Your task to perform on an android device: turn off location Image 0: 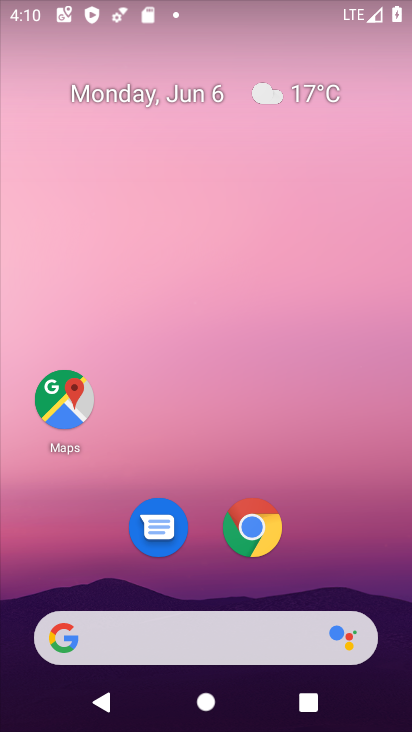
Step 0: drag from (327, 452) to (397, 120)
Your task to perform on an android device: turn off location Image 1: 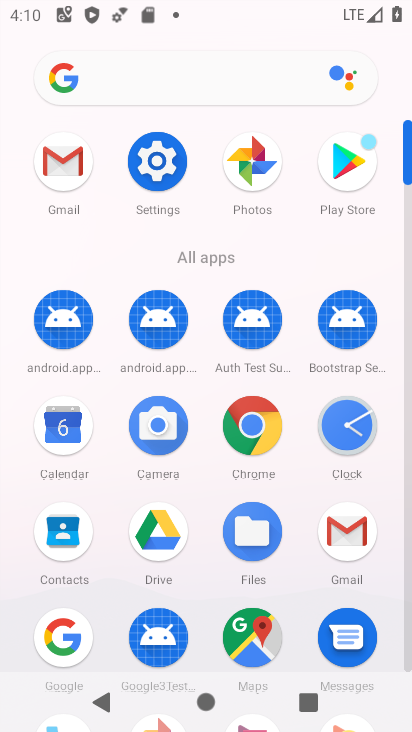
Step 1: click (137, 161)
Your task to perform on an android device: turn off location Image 2: 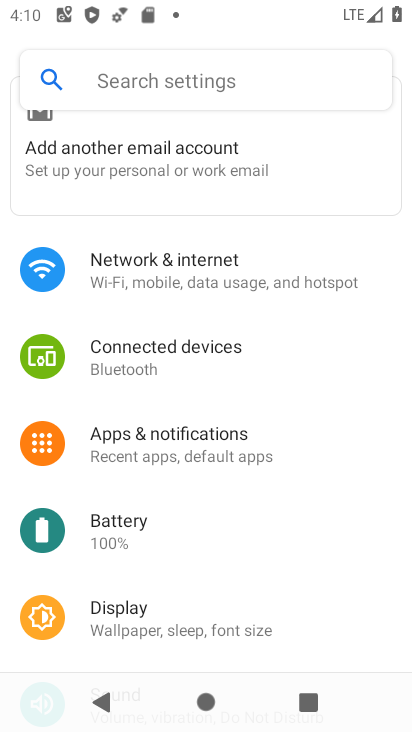
Step 2: drag from (349, 556) to (321, 171)
Your task to perform on an android device: turn off location Image 3: 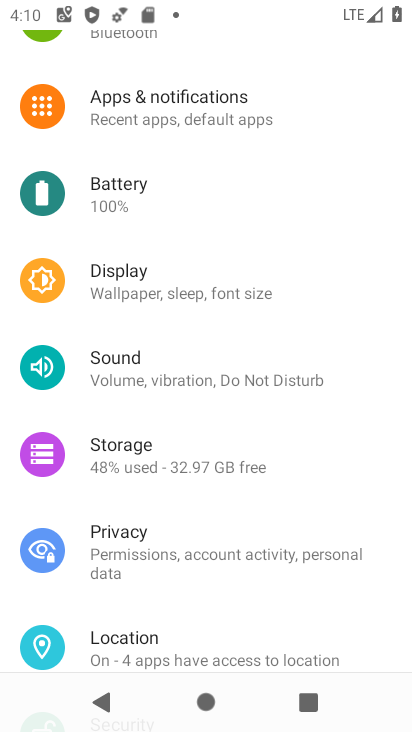
Step 3: click (183, 636)
Your task to perform on an android device: turn off location Image 4: 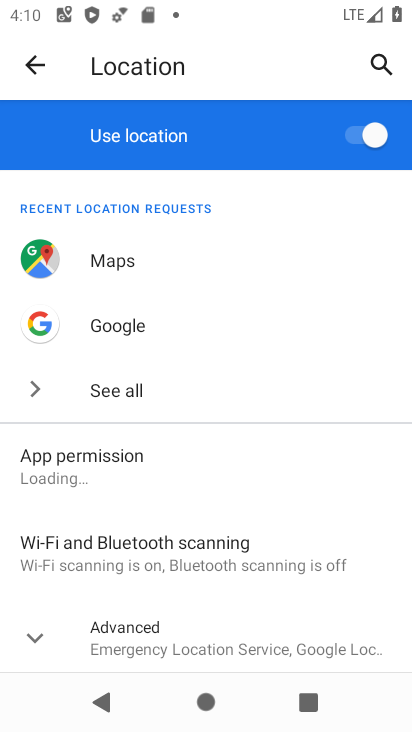
Step 4: click (372, 147)
Your task to perform on an android device: turn off location Image 5: 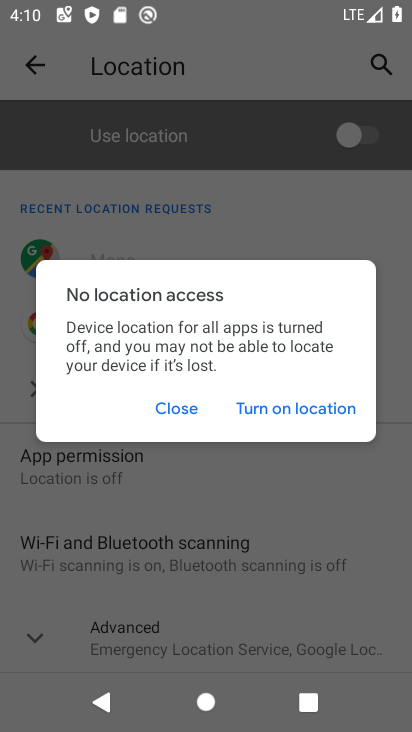
Step 5: task complete